Your task to perform on an android device: see sites visited before in the chrome app Image 0: 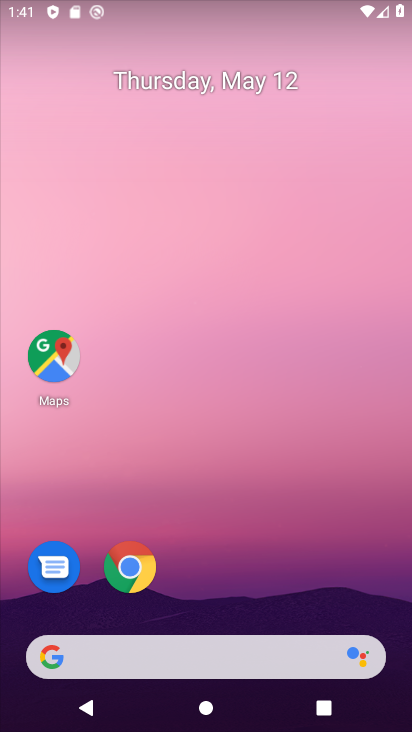
Step 0: click (124, 576)
Your task to perform on an android device: see sites visited before in the chrome app Image 1: 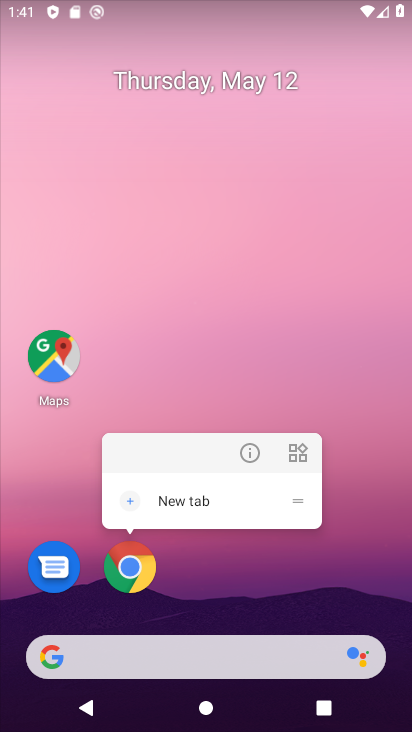
Step 1: click (124, 576)
Your task to perform on an android device: see sites visited before in the chrome app Image 2: 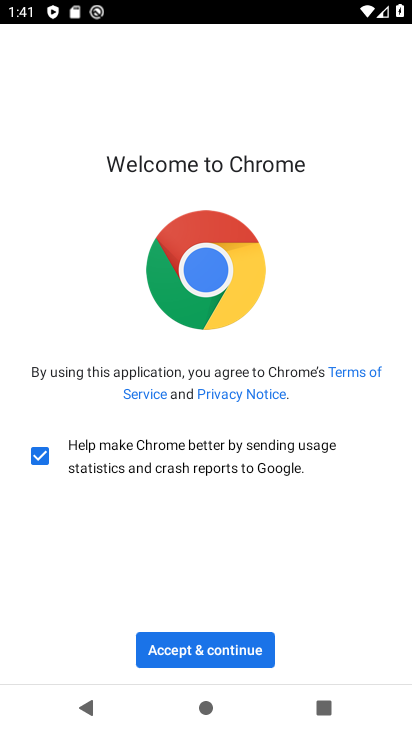
Step 2: click (222, 656)
Your task to perform on an android device: see sites visited before in the chrome app Image 3: 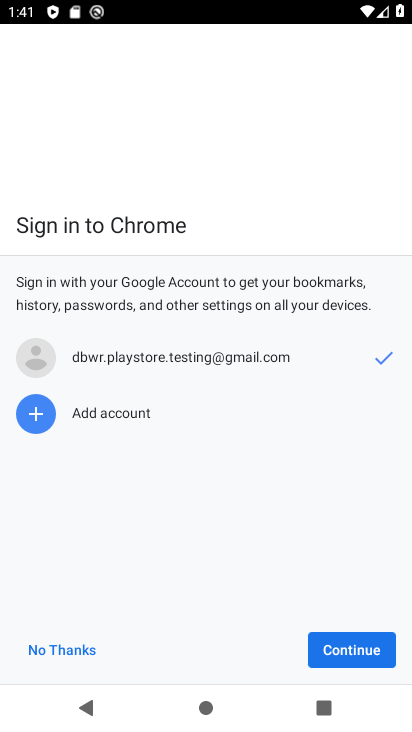
Step 3: click (330, 650)
Your task to perform on an android device: see sites visited before in the chrome app Image 4: 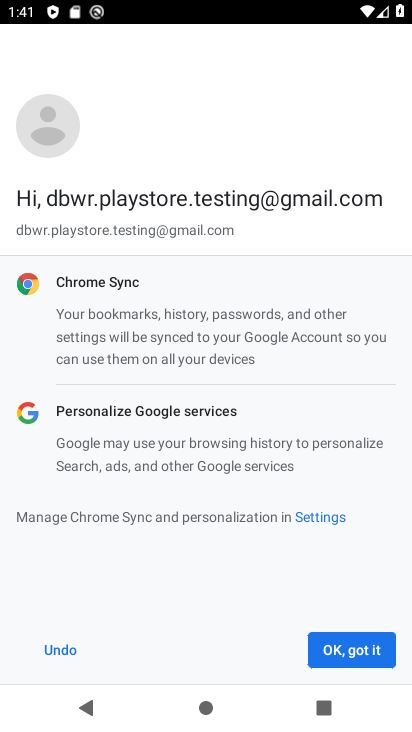
Step 4: click (337, 653)
Your task to perform on an android device: see sites visited before in the chrome app Image 5: 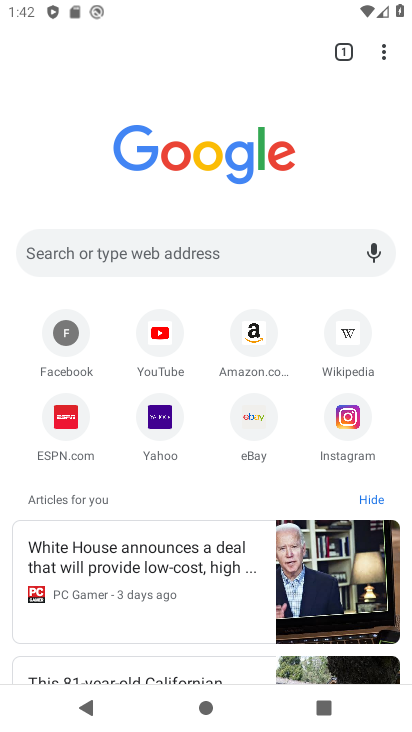
Step 5: task complete